Your task to perform on an android device: open app "Yahoo Mail" (install if not already installed) Image 0: 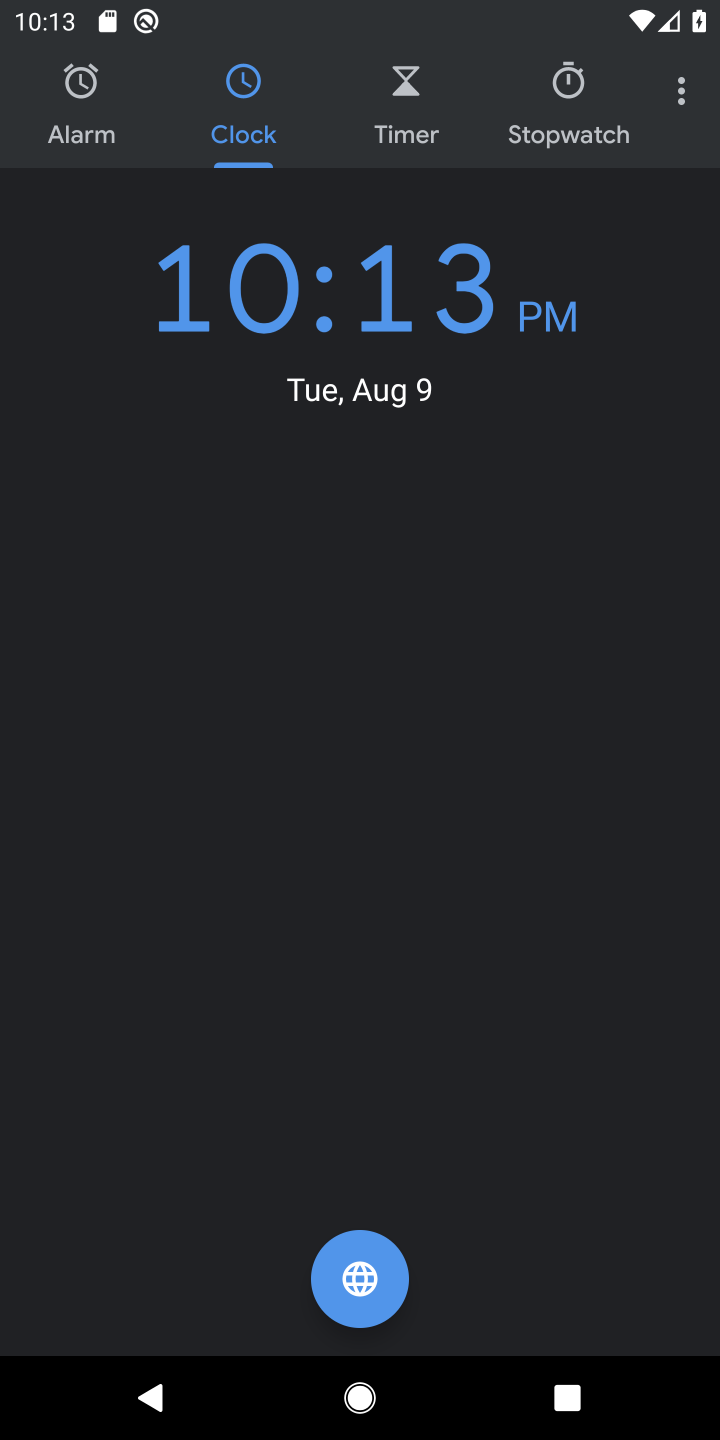
Step 0: press home button
Your task to perform on an android device: open app "Yahoo Mail" (install if not already installed) Image 1: 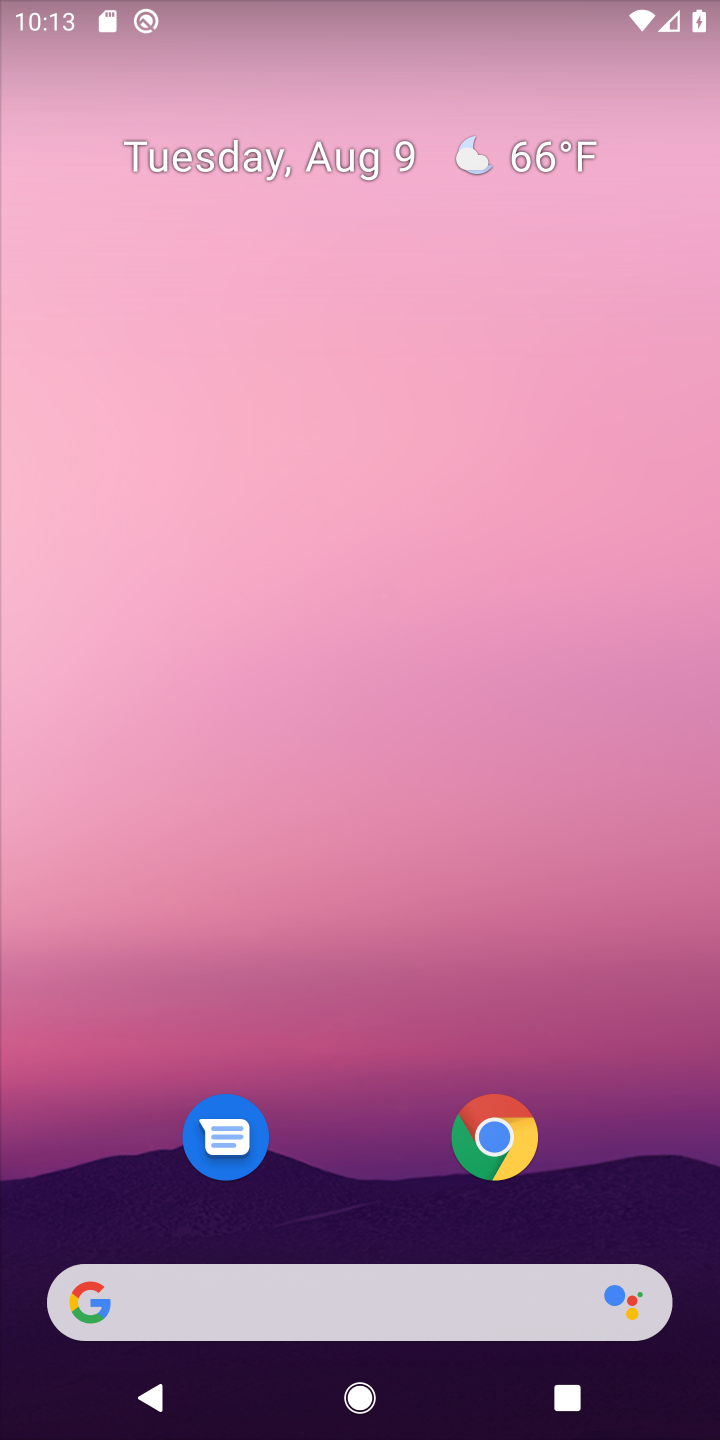
Step 1: drag from (345, 1200) to (349, 200)
Your task to perform on an android device: open app "Yahoo Mail" (install if not already installed) Image 2: 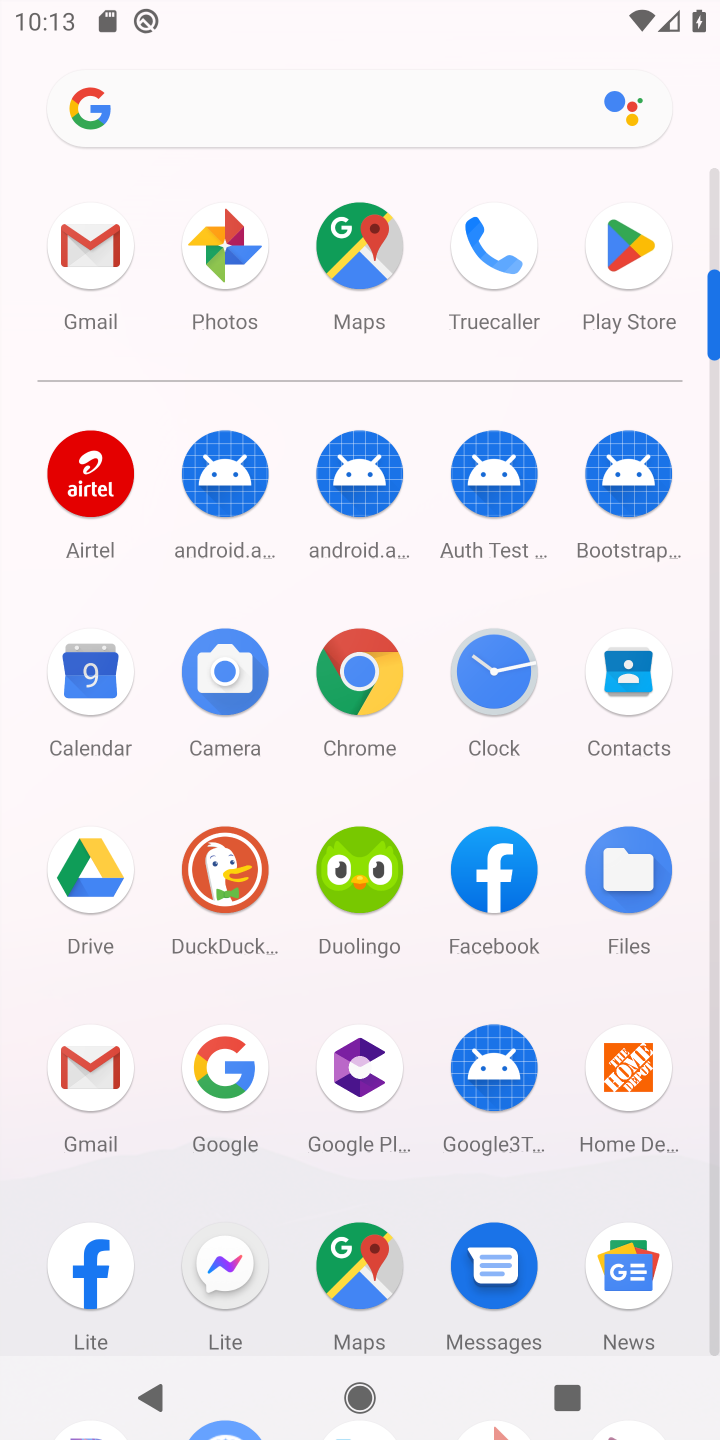
Step 2: click (613, 237)
Your task to perform on an android device: open app "Yahoo Mail" (install if not already installed) Image 3: 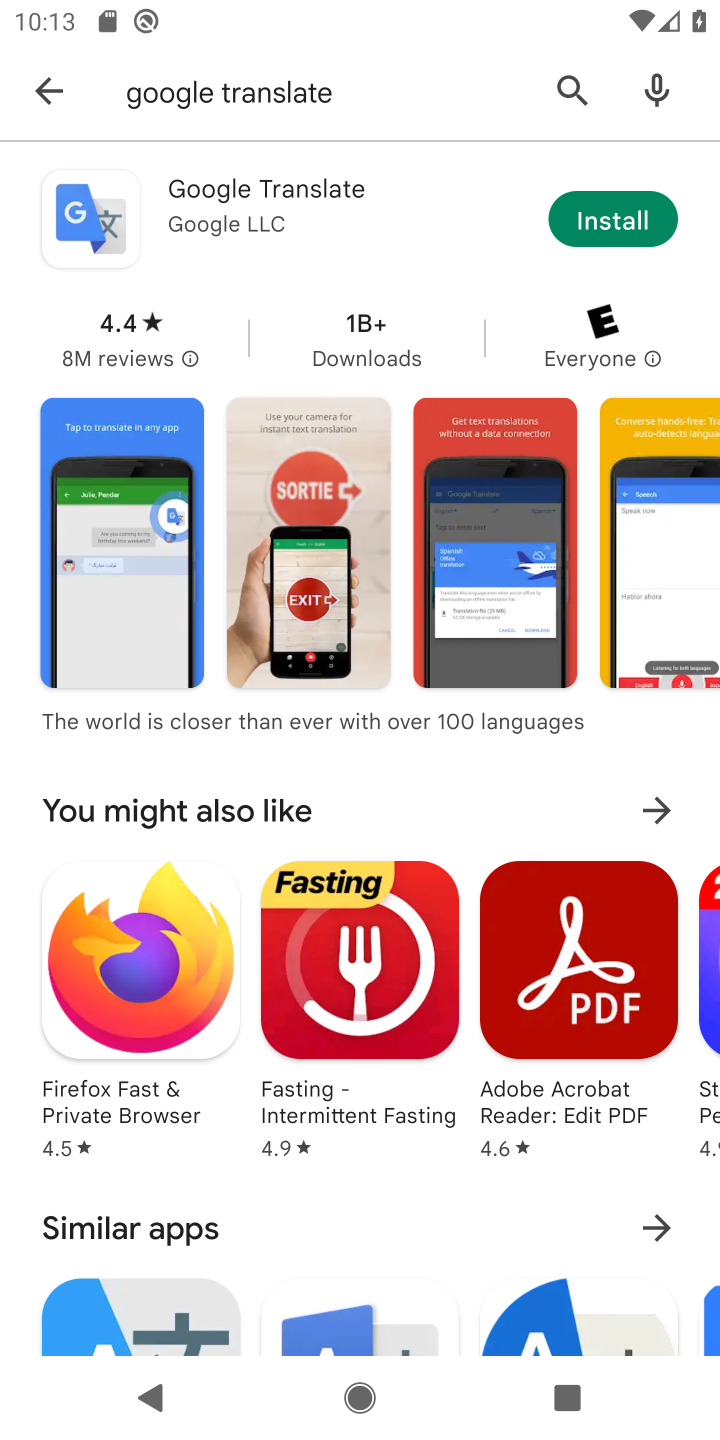
Step 3: click (587, 103)
Your task to perform on an android device: open app "Yahoo Mail" (install if not already installed) Image 4: 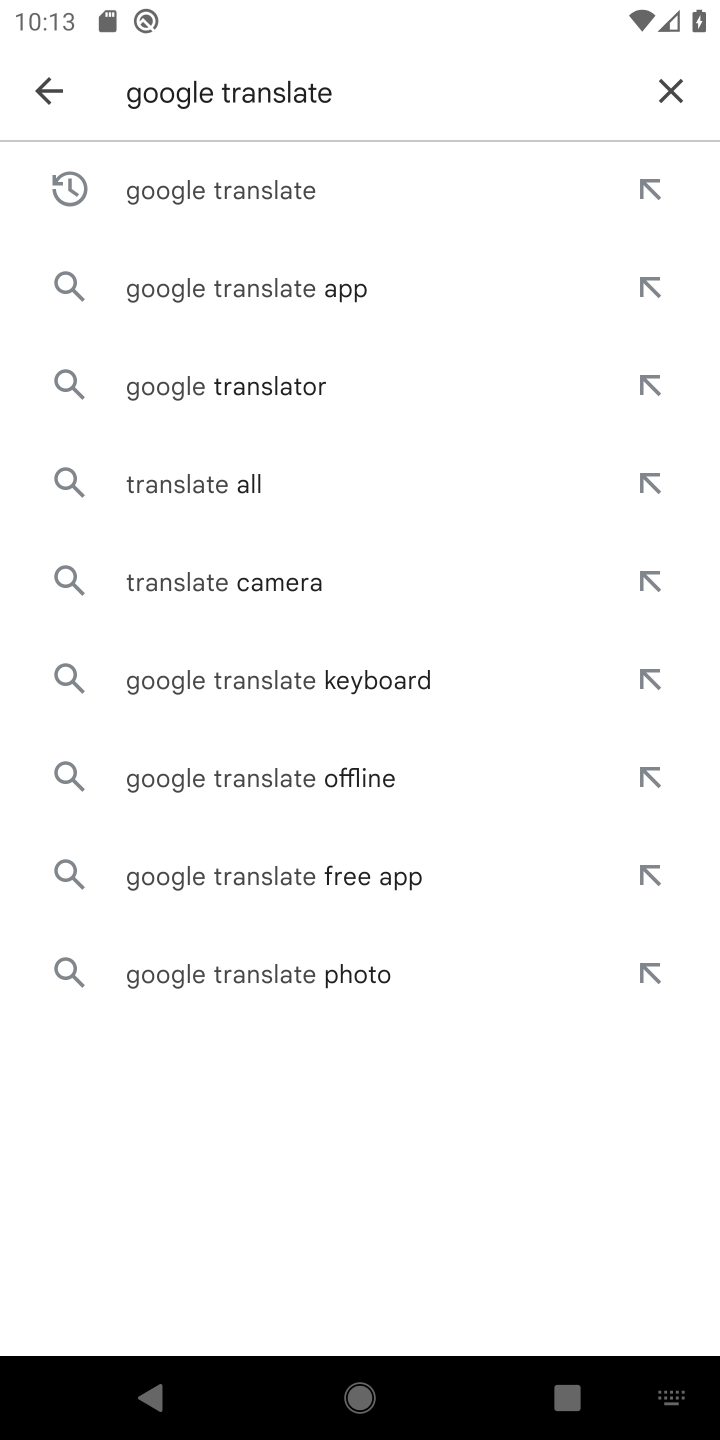
Step 4: click (666, 81)
Your task to perform on an android device: open app "Yahoo Mail" (install if not already installed) Image 5: 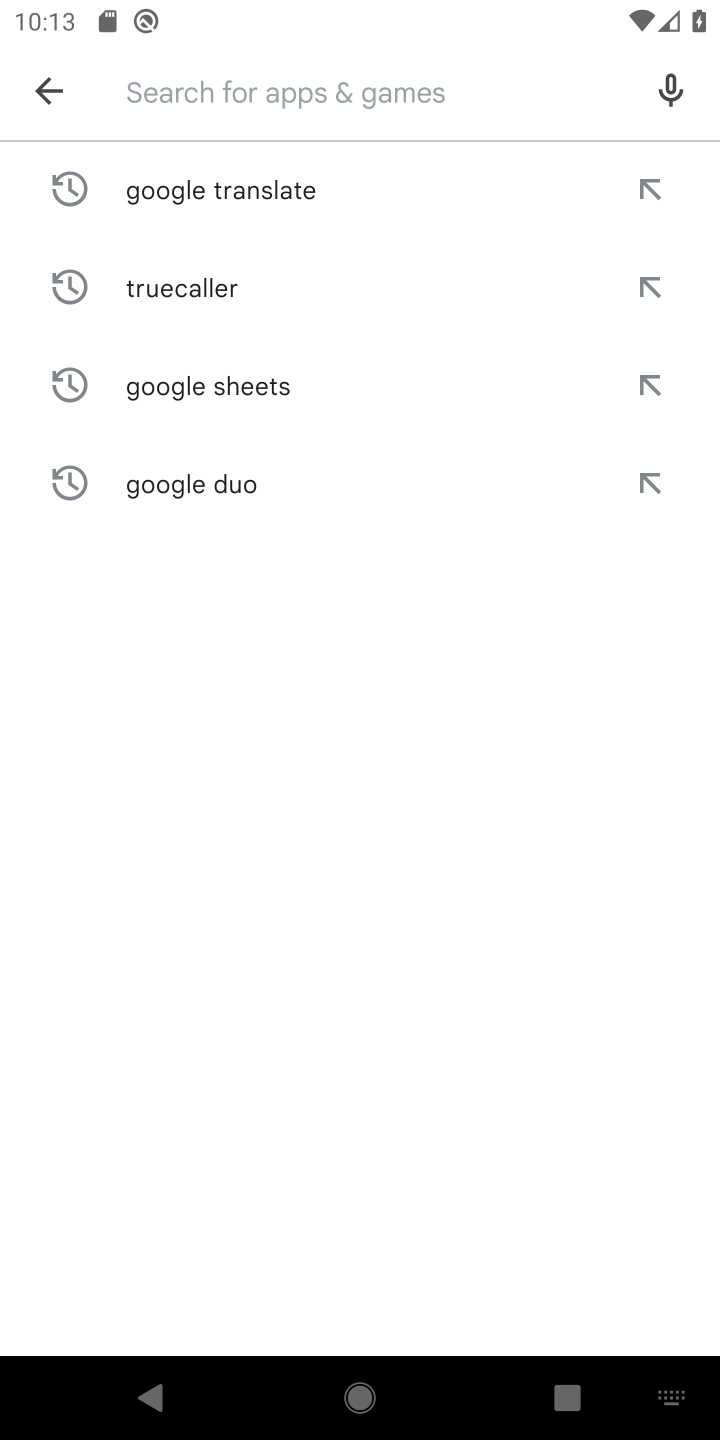
Step 5: type "Yahoo Mail"
Your task to perform on an android device: open app "Yahoo Mail" (install if not already installed) Image 6: 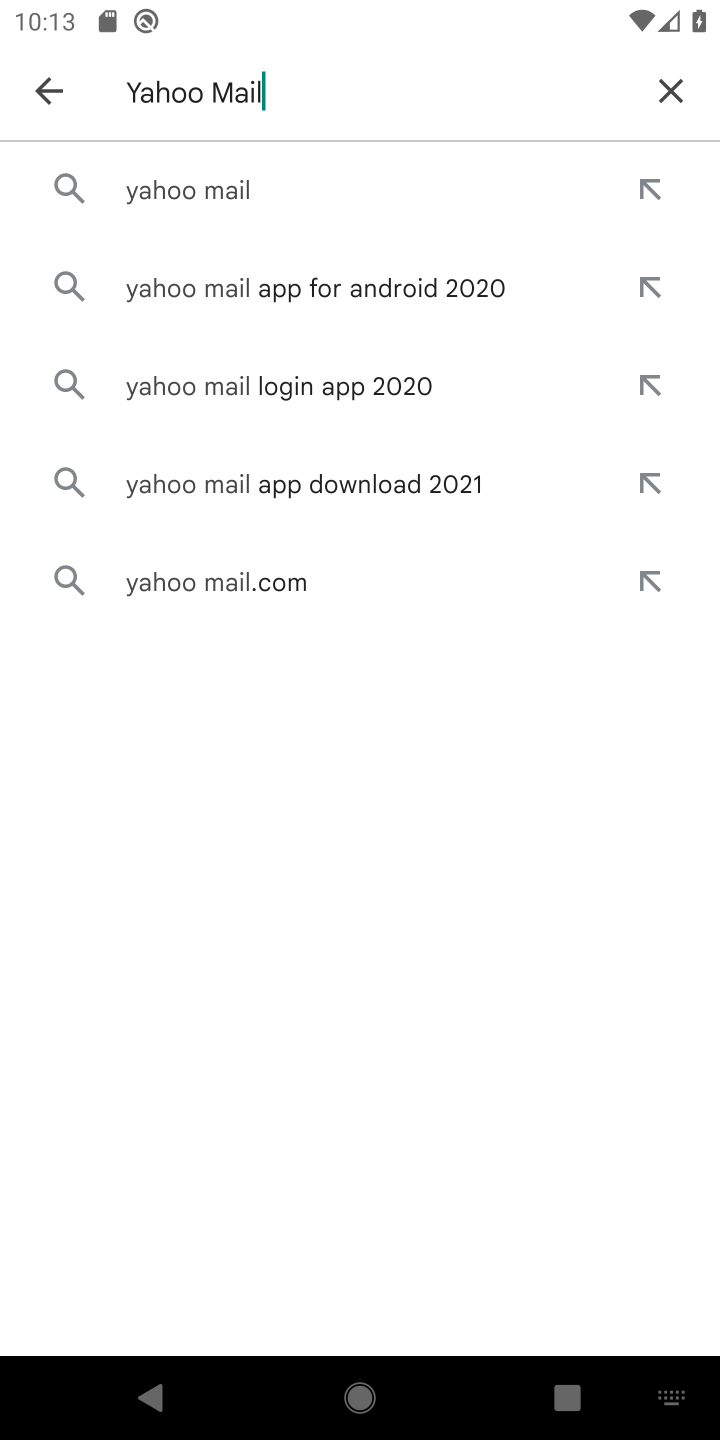
Step 6: click (133, 161)
Your task to perform on an android device: open app "Yahoo Mail" (install if not already installed) Image 7: 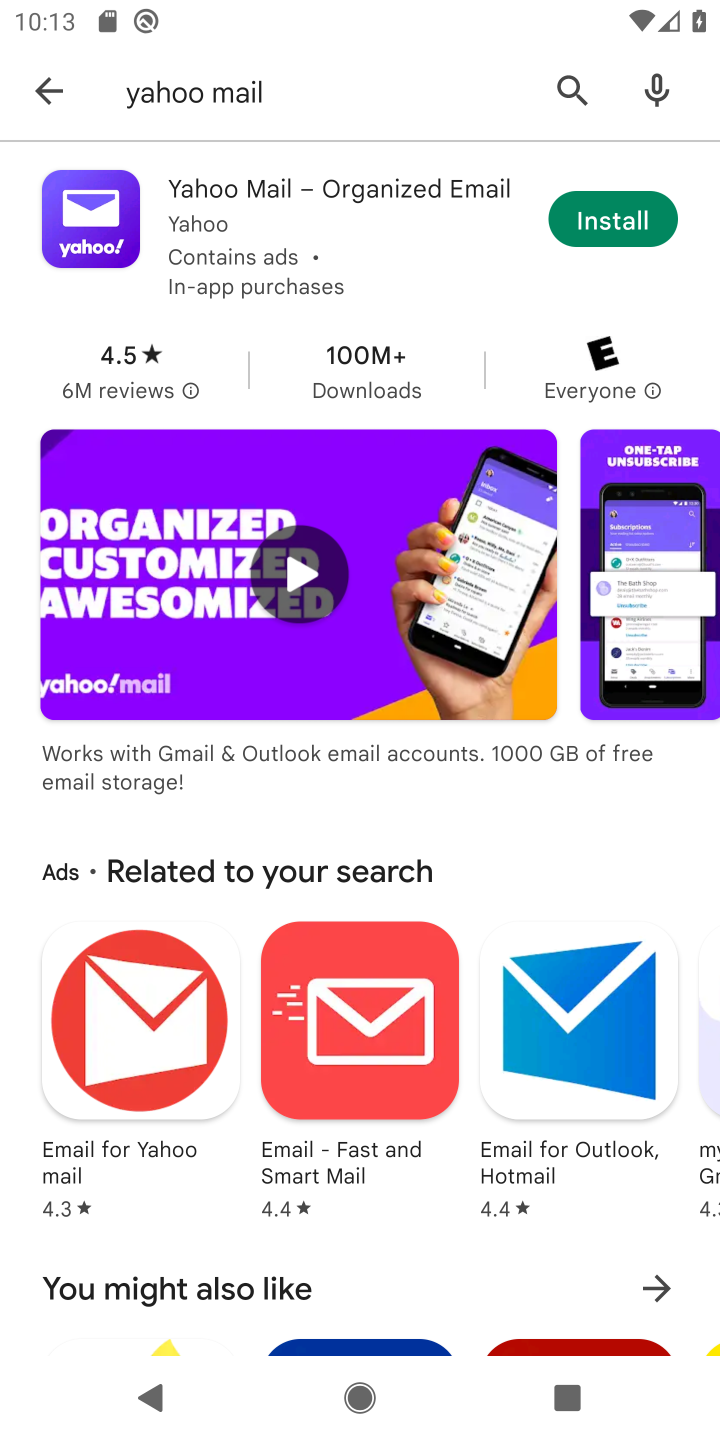
Step 7: click (606, 228)
Your task to perform on an android device: open app "Yahoo Mail" (install if not already installed) Image 8: 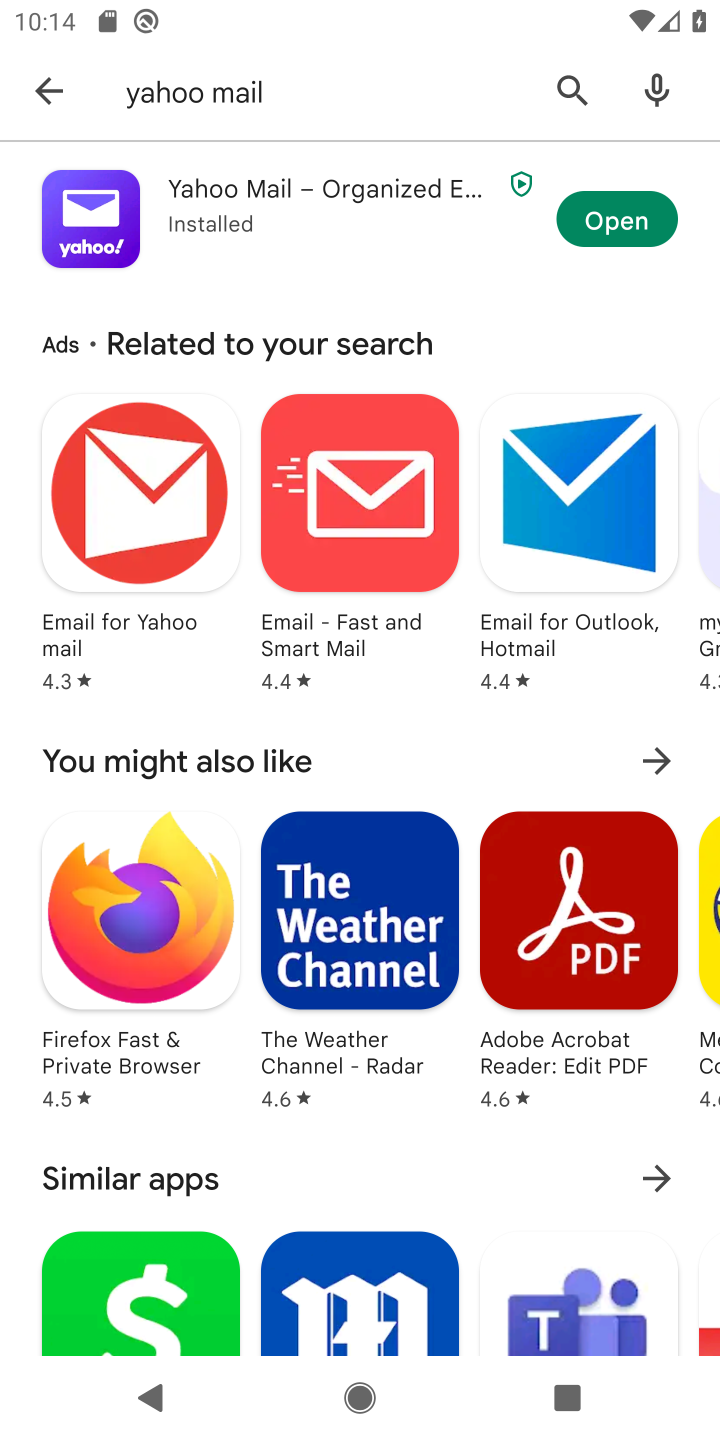
Step 8: click (647, 223)
Your task to perform on an android device: open app "Yahoo Mail" (install if not already installed) Image 9: 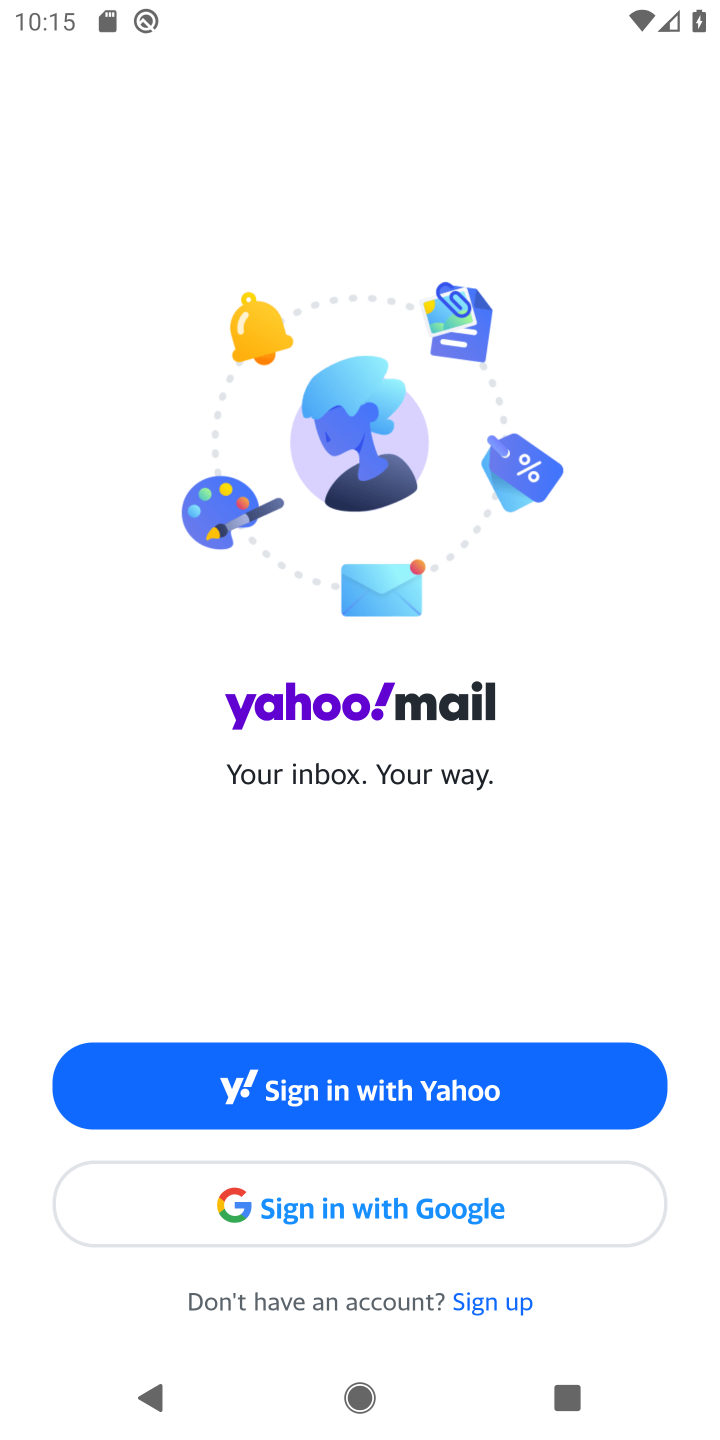
Step 9: task complete